Your task to perform on an android device: Open the Play Movies app and select the watchlist tab. Image 0: 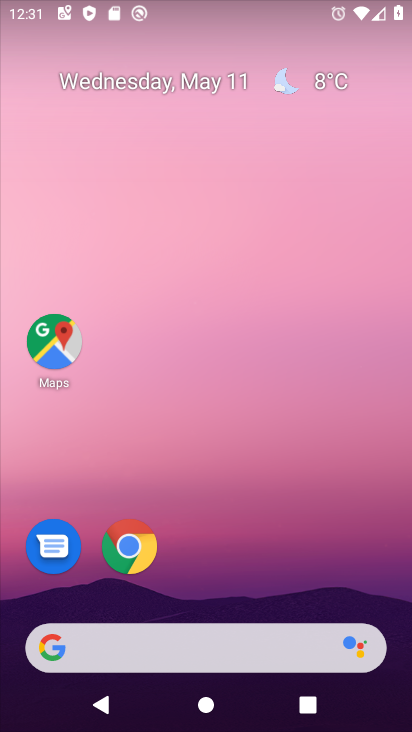
Step 0: drag from (202, 654) to (363, 186)
Your task to perform on an android device: Open the Play Movies app and select the watchlist tab. Image 1: 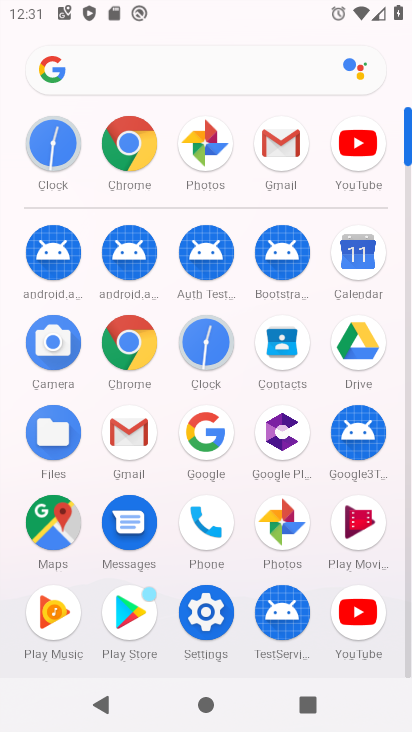
Step 1: click (357, 529)
Your task to perform on an android device: Open the Play Movies app and select the watchlist tab. Image 2: 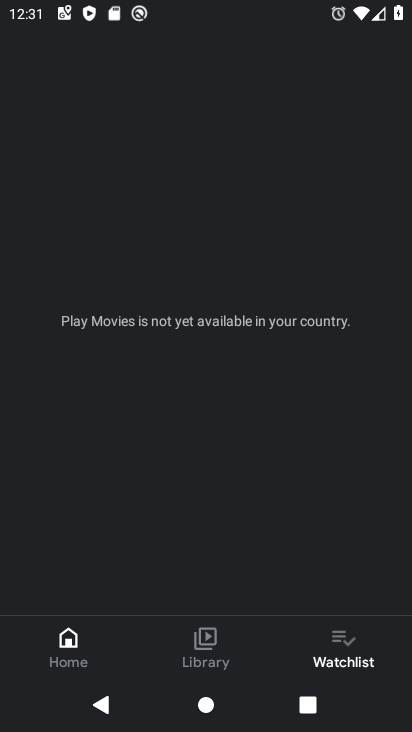
Step 2: click (352, 655)
Your task to perform on an android device: Open the Play Movies app and select the watchlist tab. Image 3: 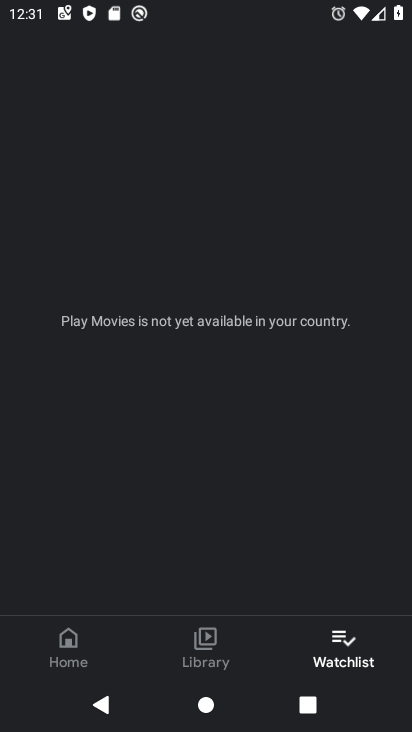
Step 3: task complete